Your task to perform on an android device: toggle priority inbox in the gmail app Image 0: 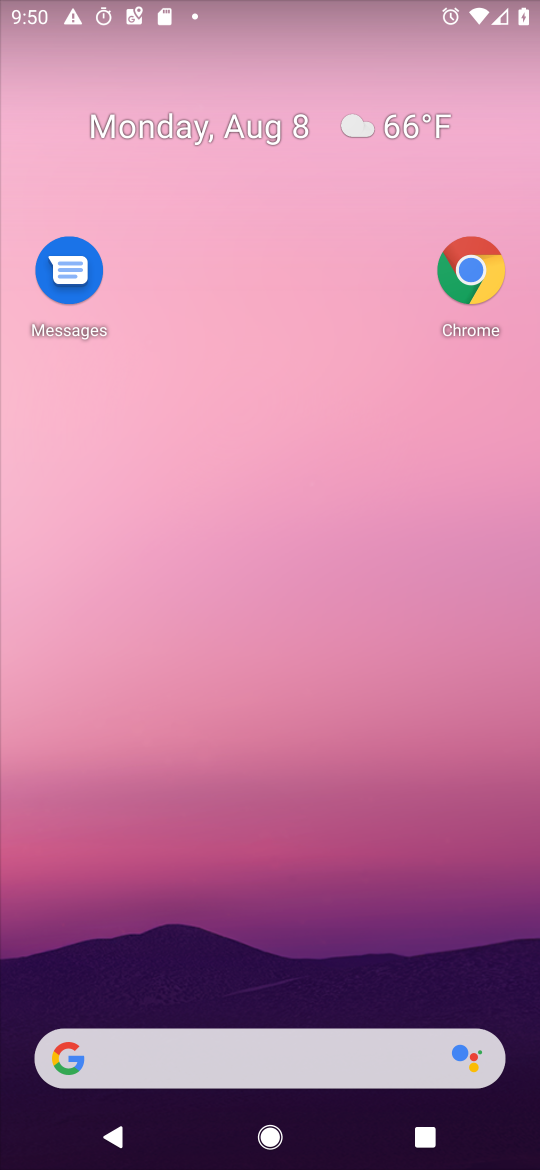
Step 0: click (146, 158)
Your task to perform on an android device: toggle priority inbox in the gmail app Image 1: 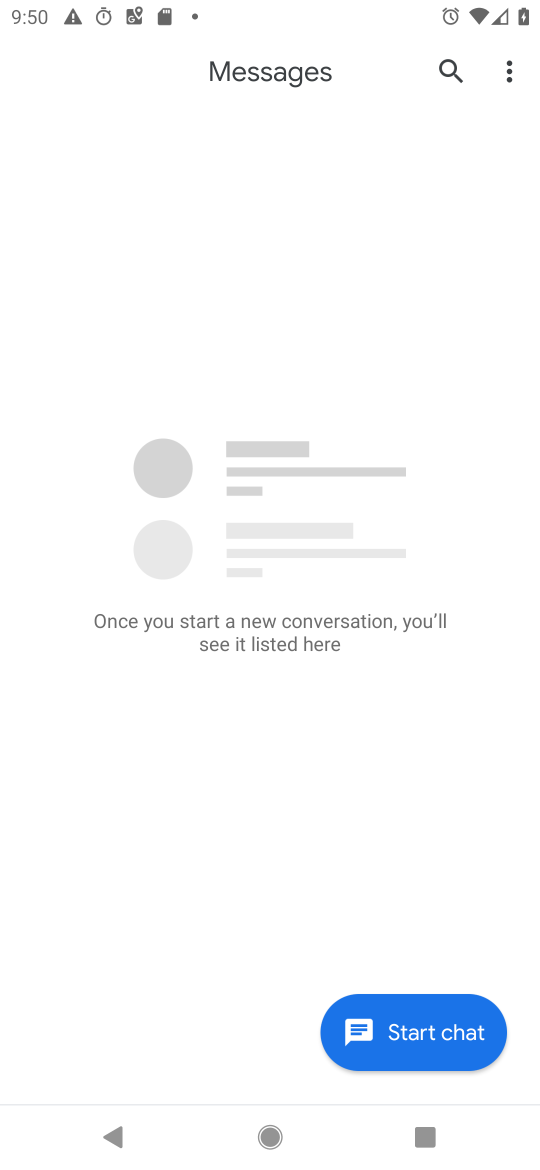
Step 1: press home button
Your task to perform on an android device: toggle priority inbox in the gmail app Image 2: 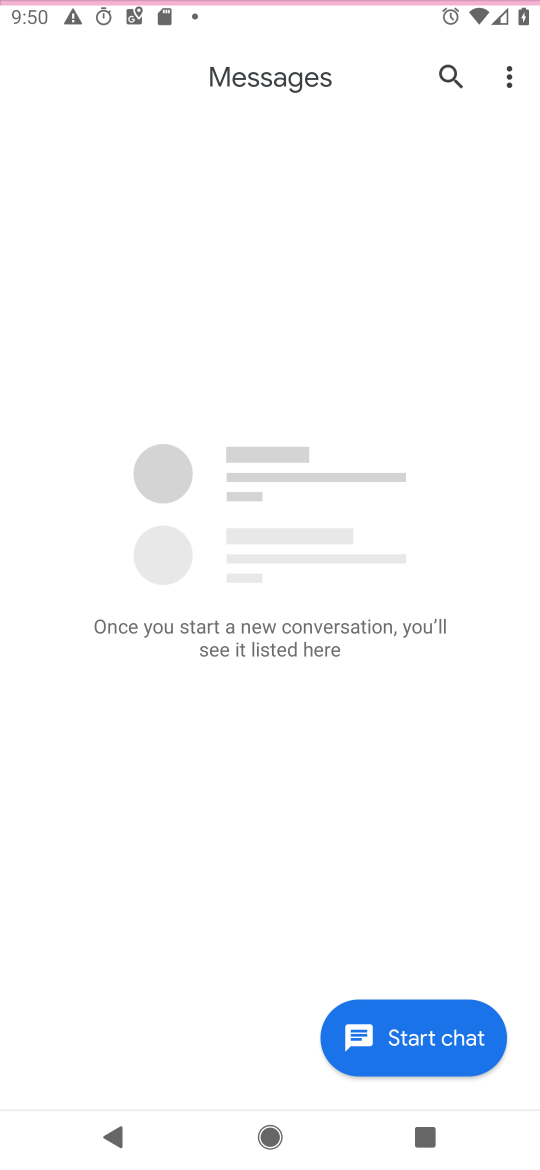
Step 2: drag from (98, 937) to (255, 0)
Your task to perform on an android device: toggle priority inbox in the gmail app Image 3: 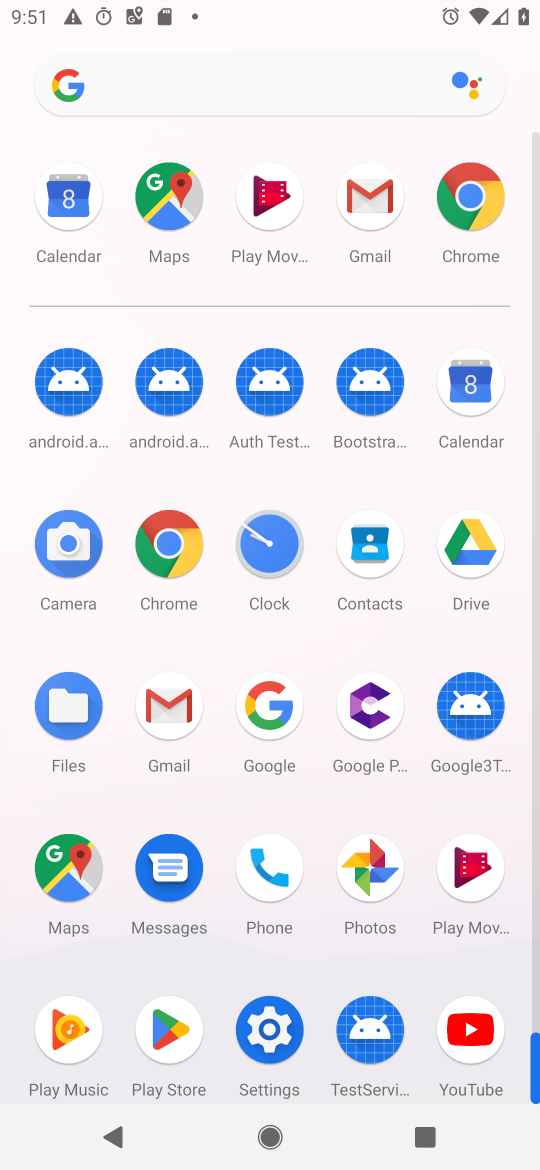
Step 3: click (168, 716)
Your task to perform on an android device: toggle priority inbox in the gmail app Image 4: 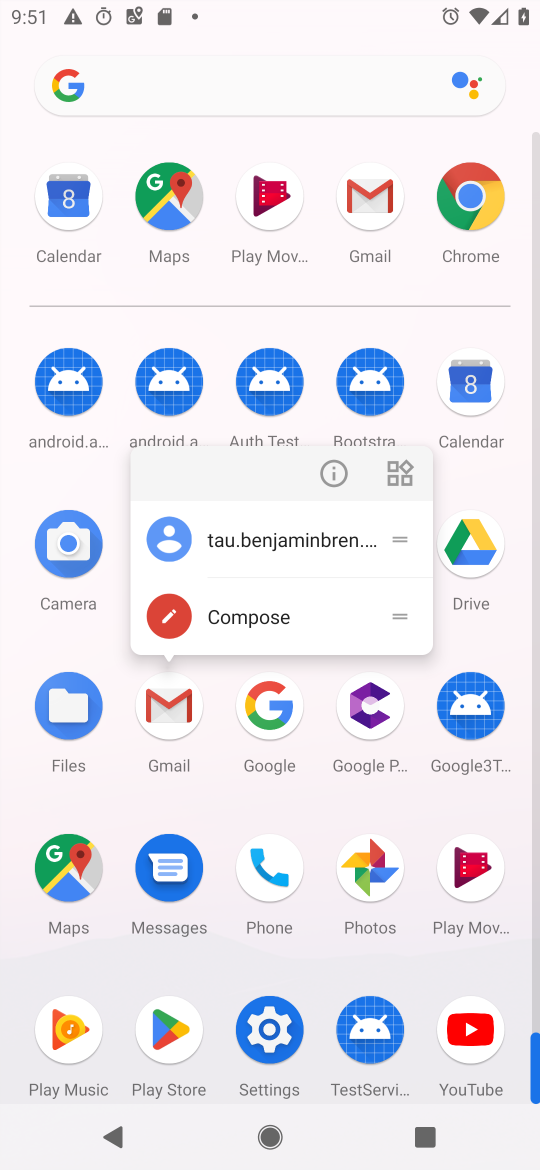
Step 4: click (330, 461)
Your task to perform on an android device: toggle priority inbox in the gmail app Image 5: 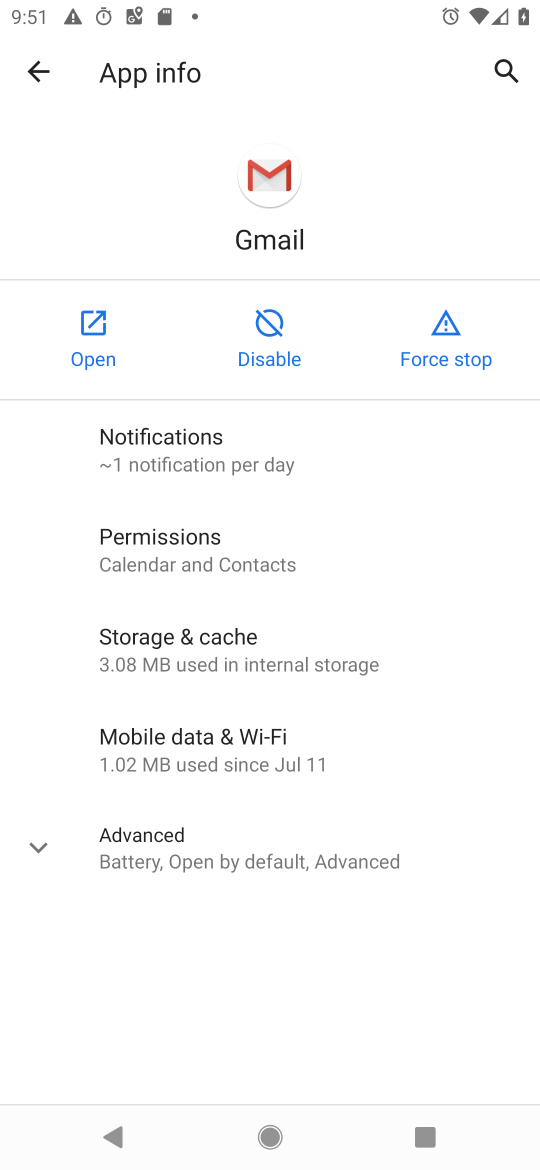
Step 5: click (96, 325)
Your task to perform on an android device: toggle priority inbox in the gmail app Image 6: 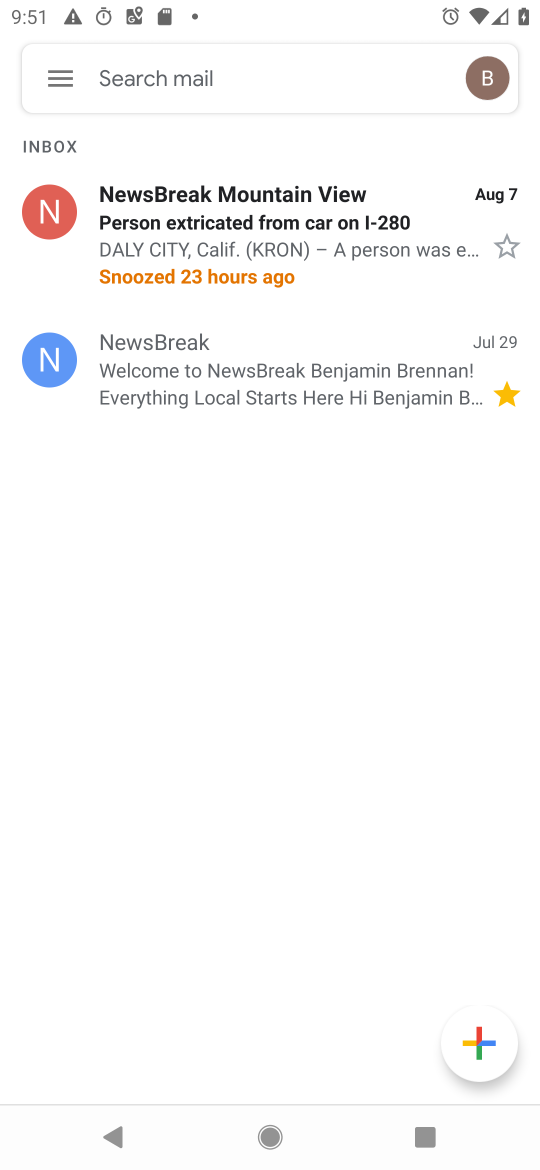
Step 6: click (50, 78)
Your task to perform on an android device: toggle priority inbox in the gmail app Image 7: 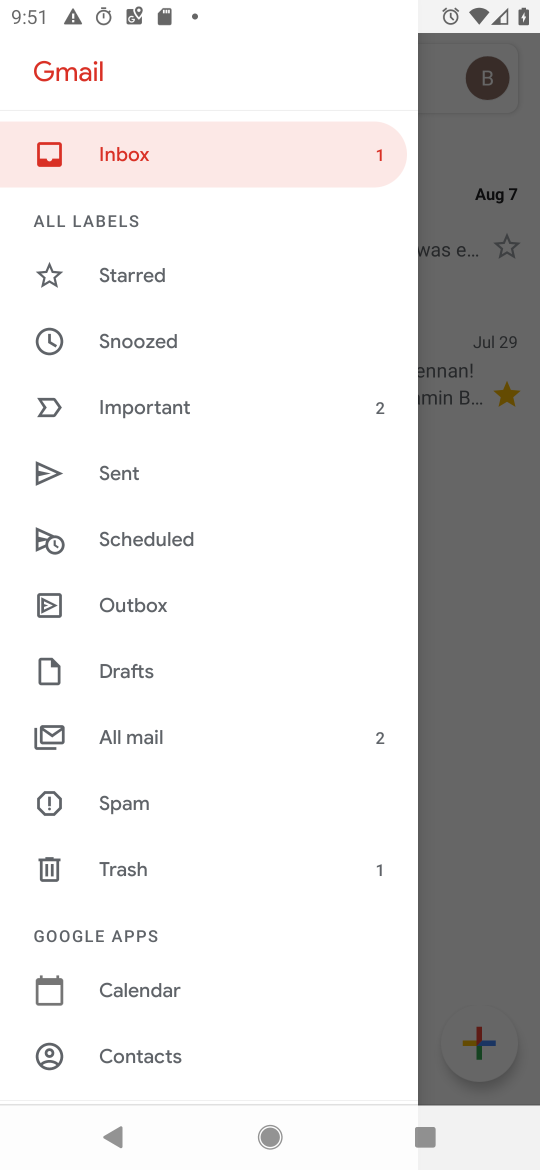
Step 7: click (132, 155)
Your task to perform on an android device: toggle priority inbox in the gmail app Image 8: 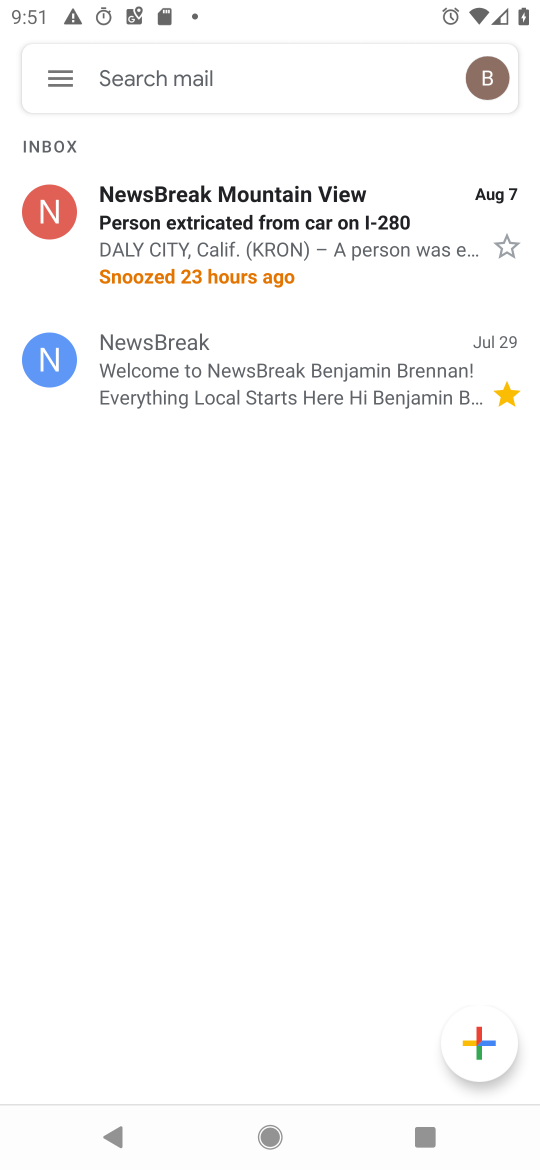
Step 8: click (46, 101)
Your task to perform on an android device: toggle priority inbox in the gmail app Image 9: 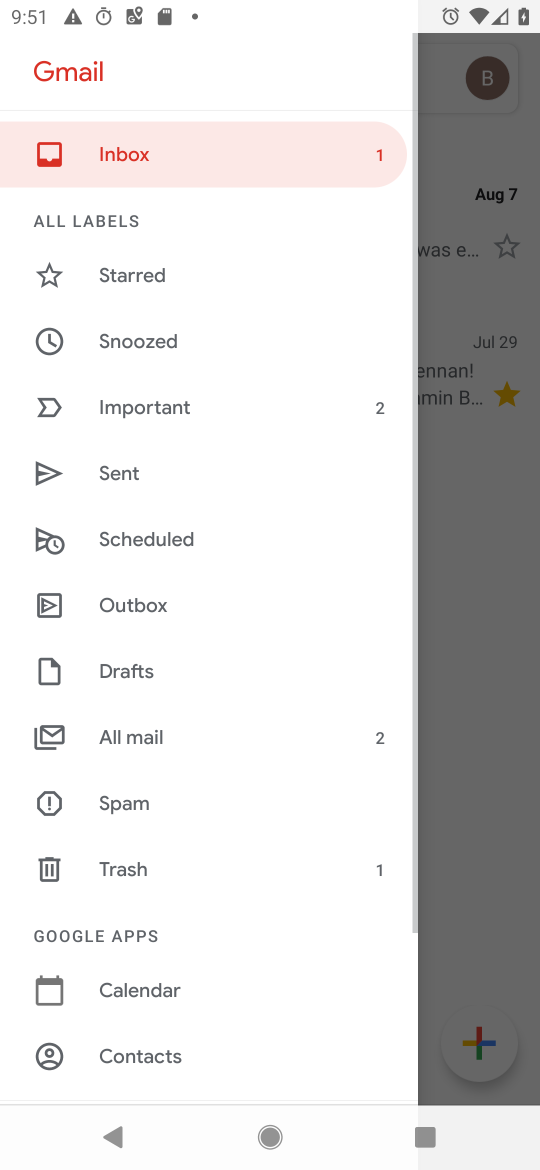
Step 9: drag from (247, 945) to (264, 601)
Your task to perform on an android device: toggle priority inbox in the gmail app Image 10: 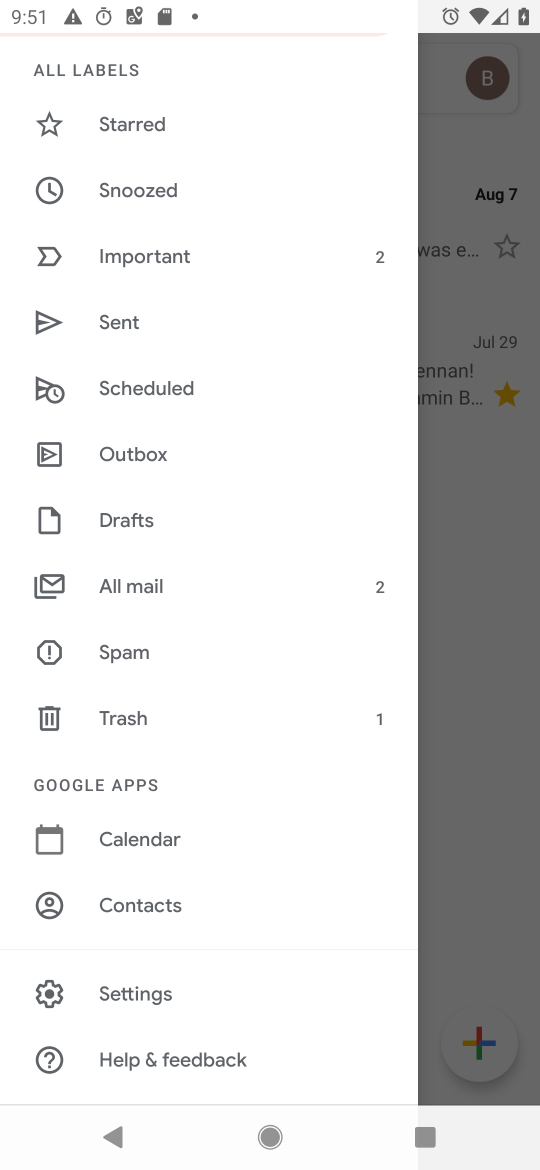
Step 10: drag from (137, 938) to (210, 85)
Your task to perform on an android device: toggle priority inbox in the gmail app Image 11: 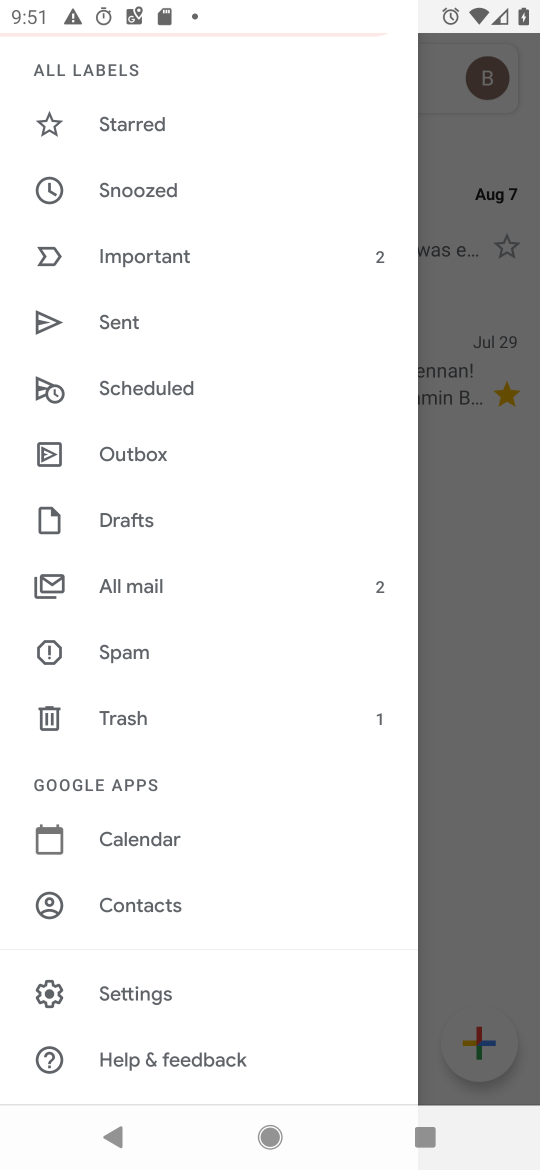
Step 11: click (105, 988)
Your task to perform on an android device: toggle priority inbox in the gmail app Image 12: 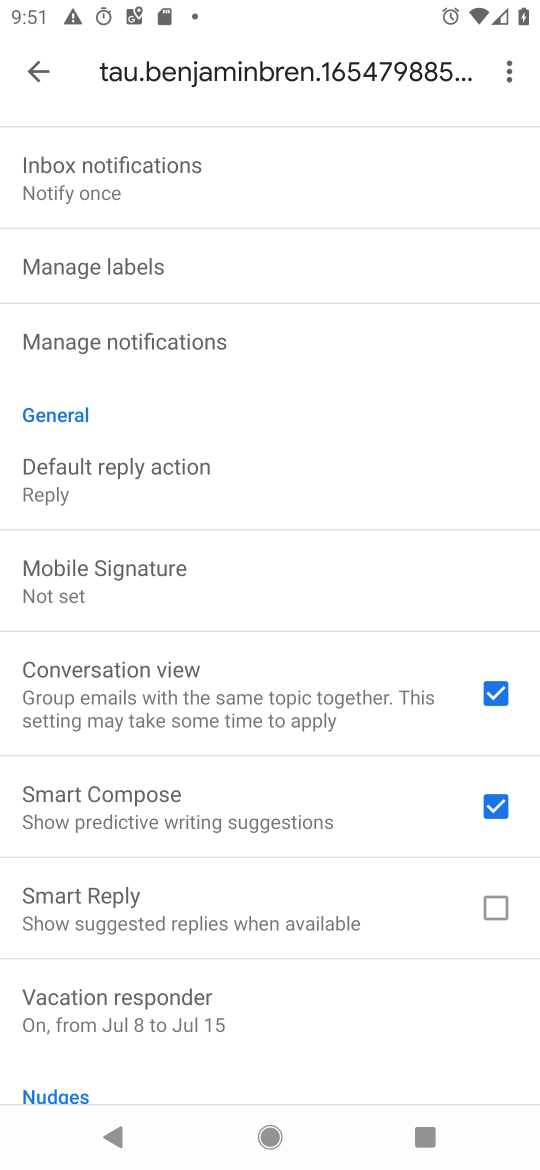
Step 12: drag from (283, 266) to (379, 1167)
Your task to perform on an android device: toggle priority inbox in the gmail app Image 13: 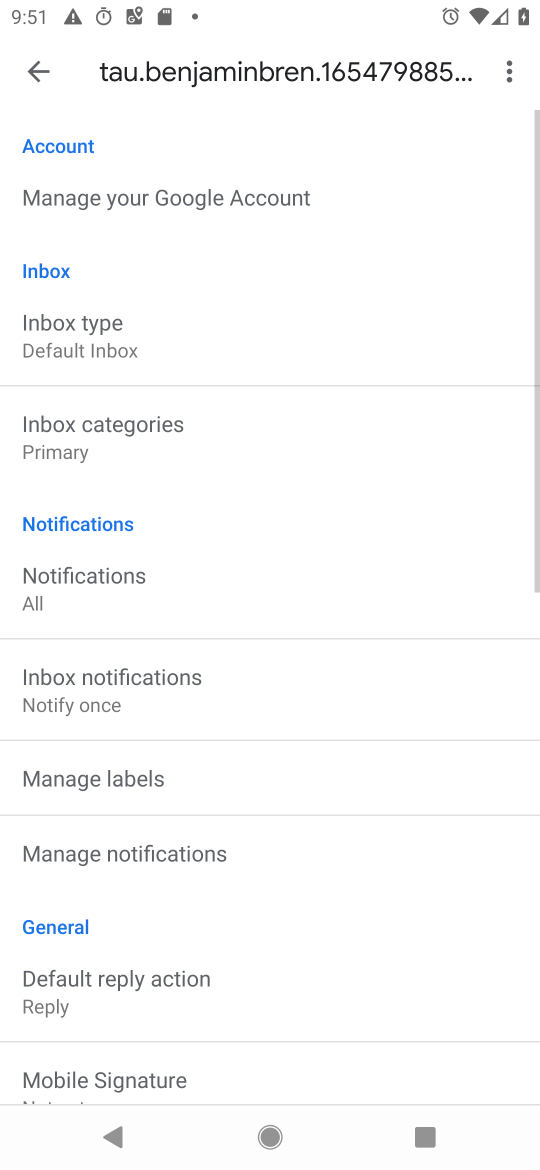
Step 13: click (100, 321)
Your task to perform on an android device: toggle priority inbox in the gmail app Image 14: 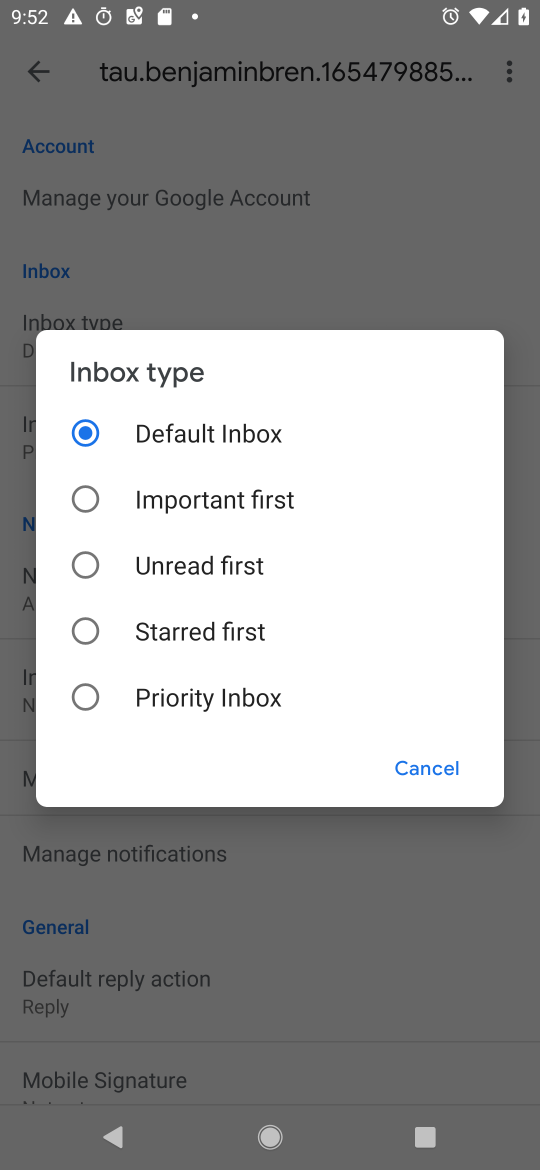
Step 14: click (191, 689)
Your task to perform on an android device: toggle priority inbox in the gmail app Image 15: 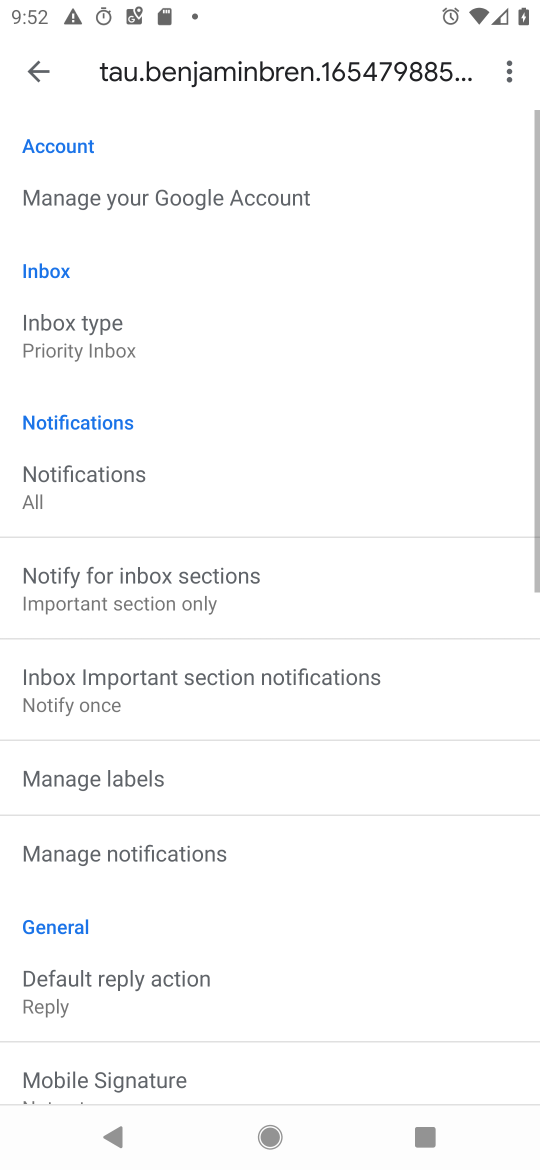
Step 15: task complete